Your task to perform on an android device: Go to network settings Image 0: 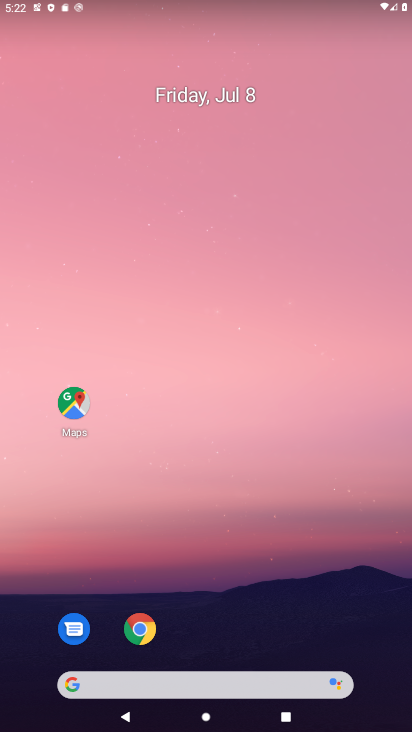
Step 0: press home button
Your task to perform on an android device: Go to network settings Image 1: 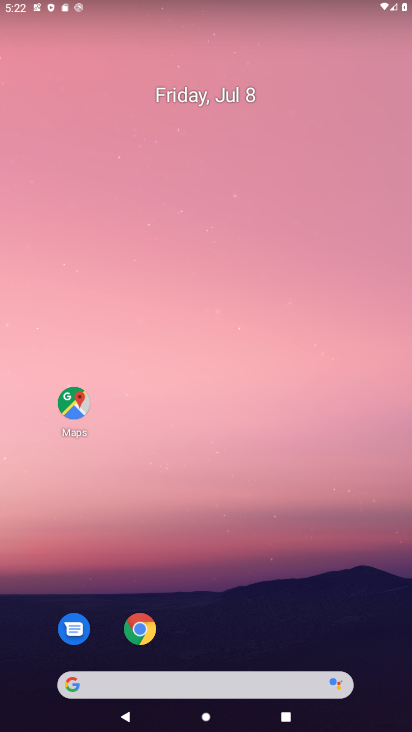
Step 1: drag from (259, 639) to (275, 145)
Your task to perform on an android device: Go to network settings Image 2: 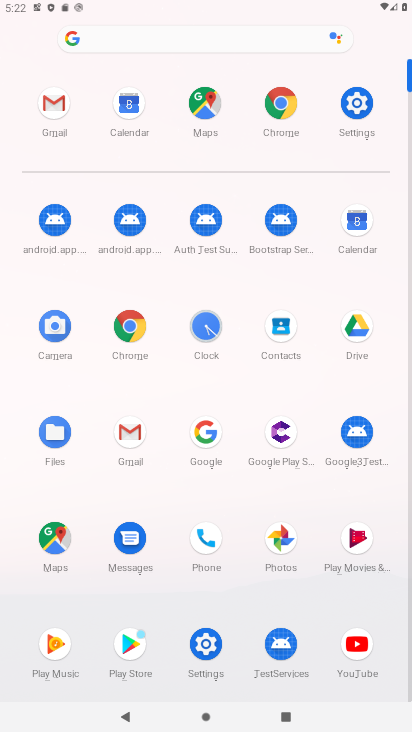
Step 2: click (362, 115)
Your task to perform on an android device: Go to network settings Image 3: 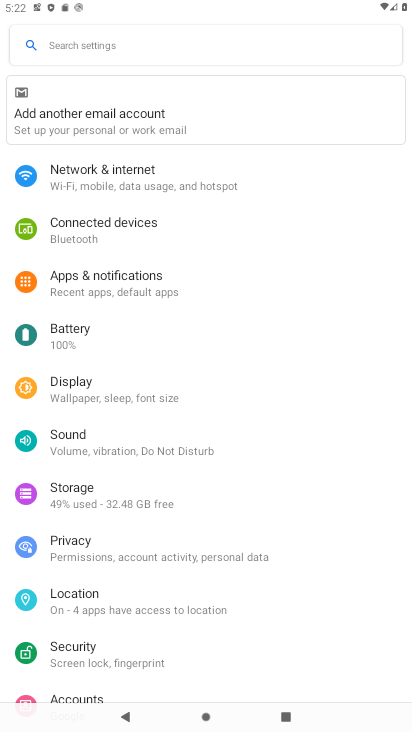
Step 3: click (90, 180)
Your task to perform on an android device: Go to network settings Image 4: 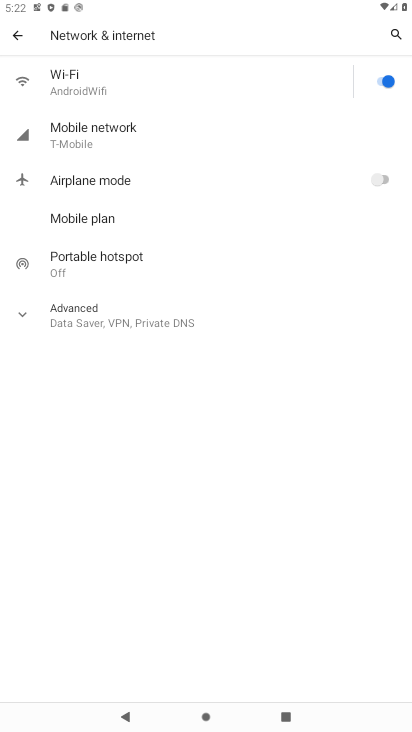
Step 4: task complete